Your task to perform on an android device: change timer sound Image 0: 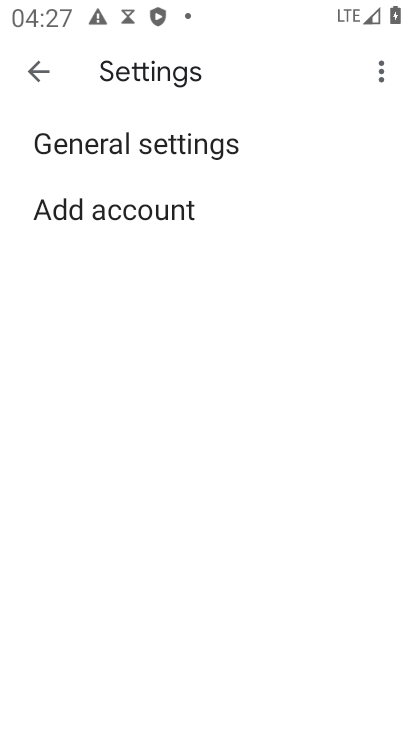
Step 0: click (35, 69)
Your task to perform on an android device: change timer sound Image 1: 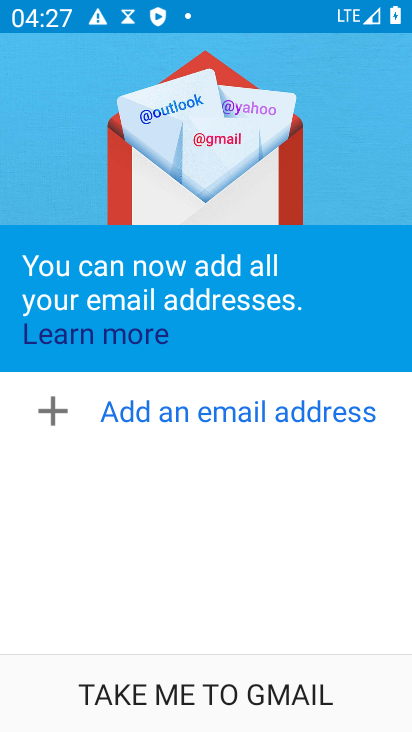
Step 1: press back button
Your task to perform on an android device: change timer sound Image 2: 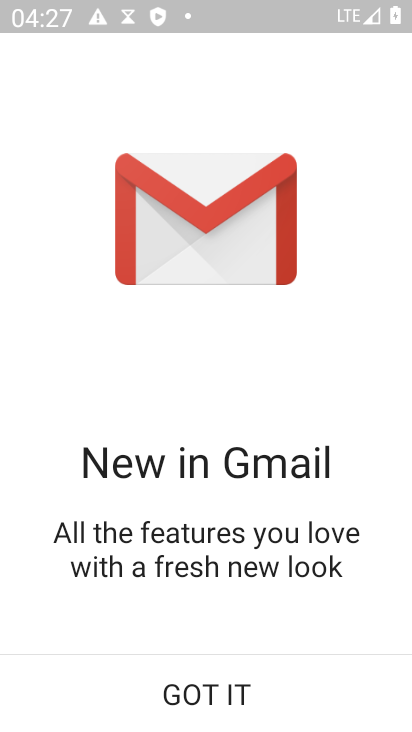
Step 2: press home button
Your task to perform on an android device: change timer sound Image 3: 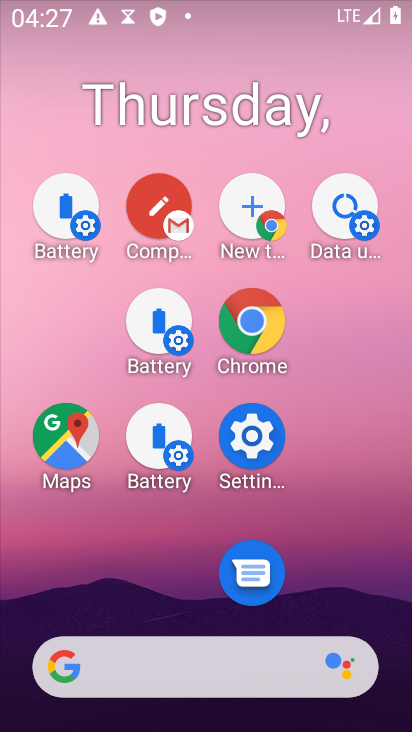
Step 3: drag from (304, 650) to (322, 158)
Your task to perform on an android device: change timer sound Image 4: 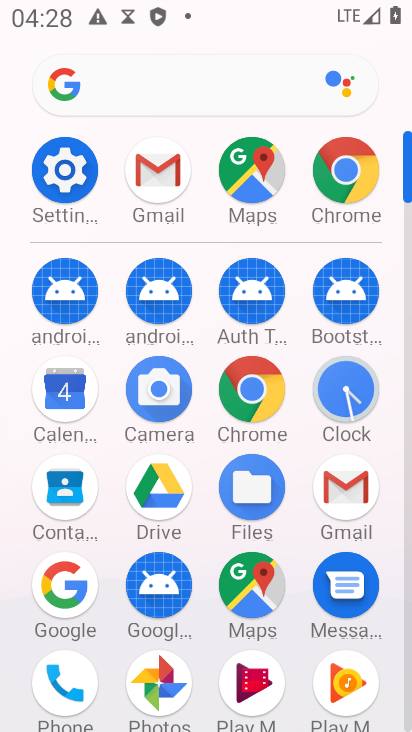
Step 4: click (346, 395)
Your task to perform on an android device: change timer sound Image 5: 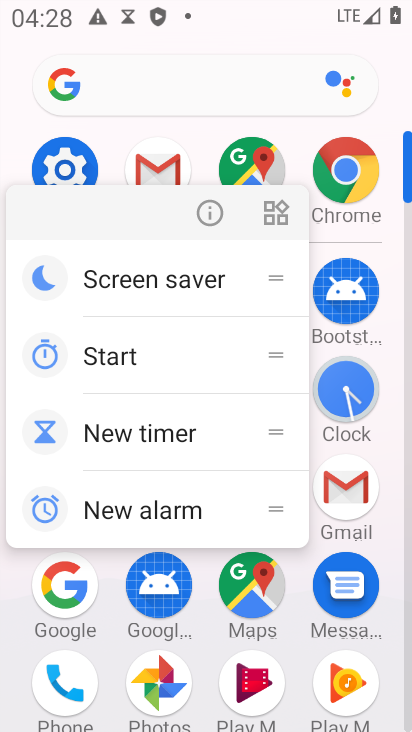
Step 5: click (338, 404)
Your task to perform on an android device: change timer sound Image 6: 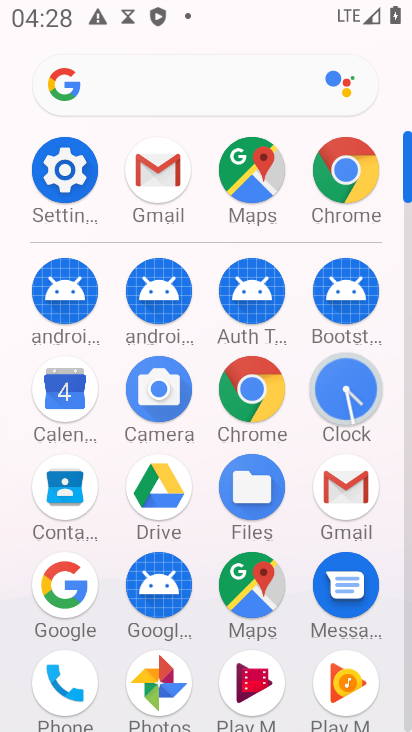
Step 6: click (338, 404)
Your task to perform on an android device: change timer sound Image 7: 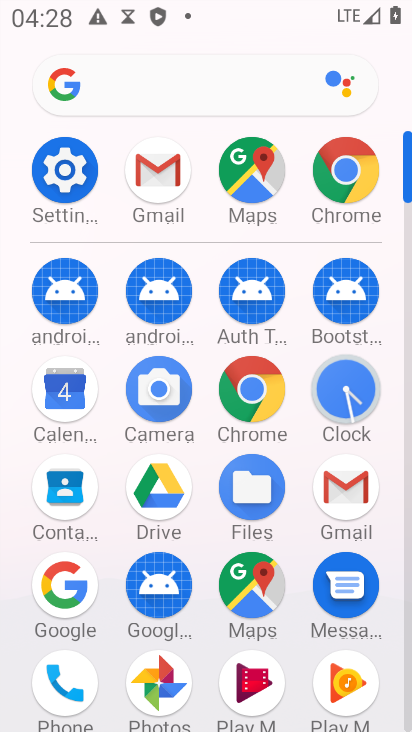
Step 7: click (338, 401)
Your task to perform on an android device: change timer sound Image 8: 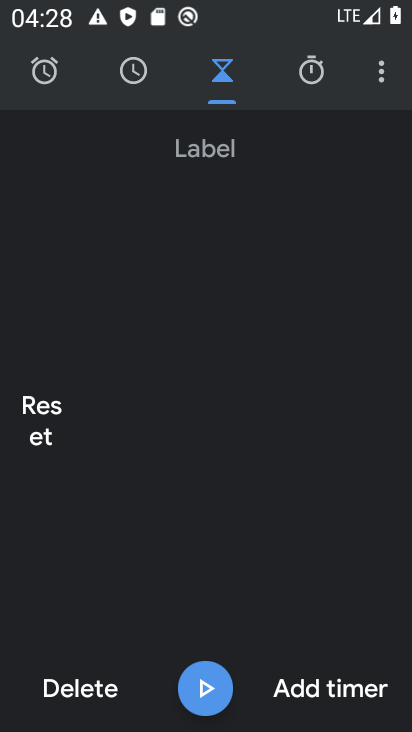
Step 8: click (131, 78)
Your task to perform on an android device: change timer sound Image 9: 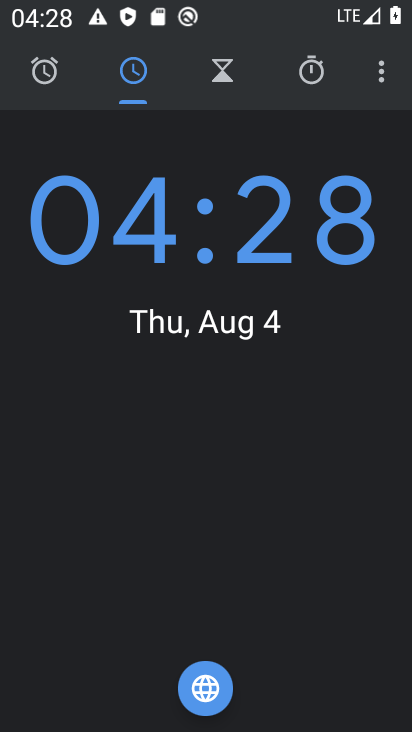
Step 9: click (212, 73)
Your task to perform on an android device: change timer sound Image 10: 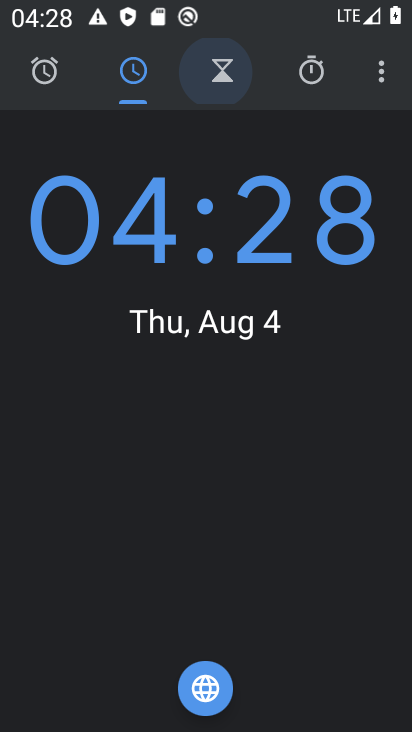
Step 10: click (212, 73)
Your task to perform on an android device: change timer sound Image 11: 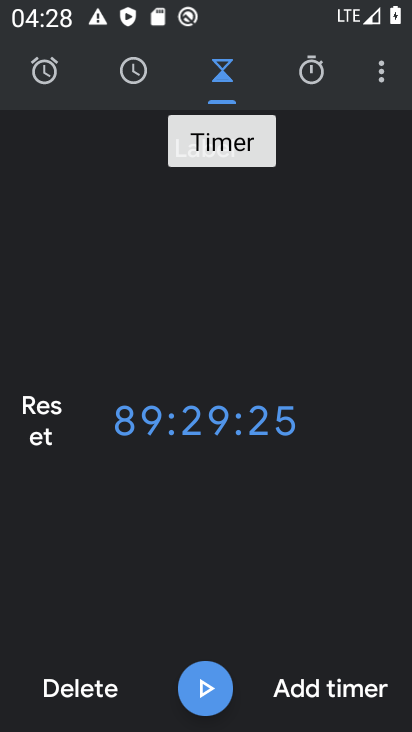
Step 11: click (212, 75)
Your task to perform on an android device: change timer sound Image 12: 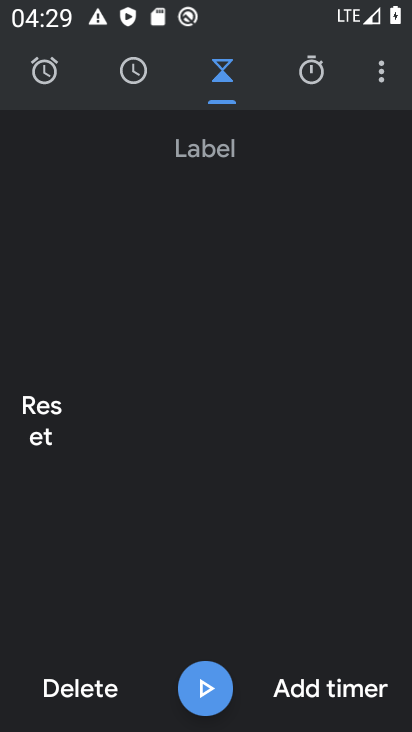
Step 12: click (203, 695)
Your task to perform on an android device: change timer sound Image 13: 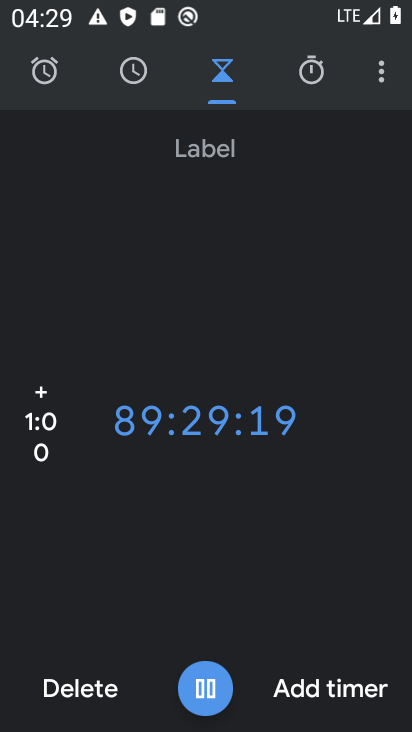
Step 13: click (195, 683)
Your task to perform on an android device: change timer sound Image 14: 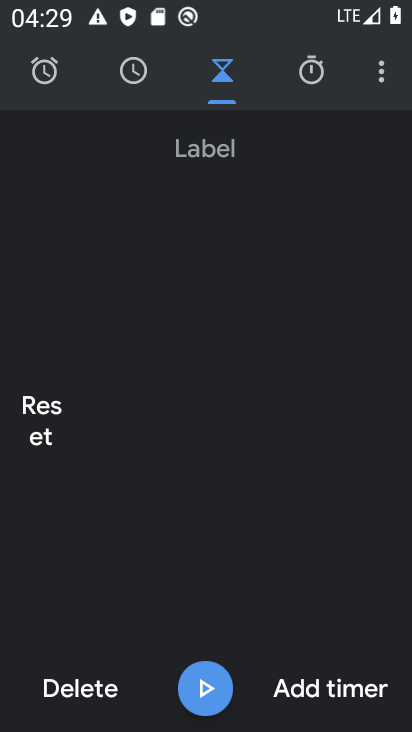
Step 14: task complete